Your task to perform on an android device: turn off translation in the chrome app Image 0: 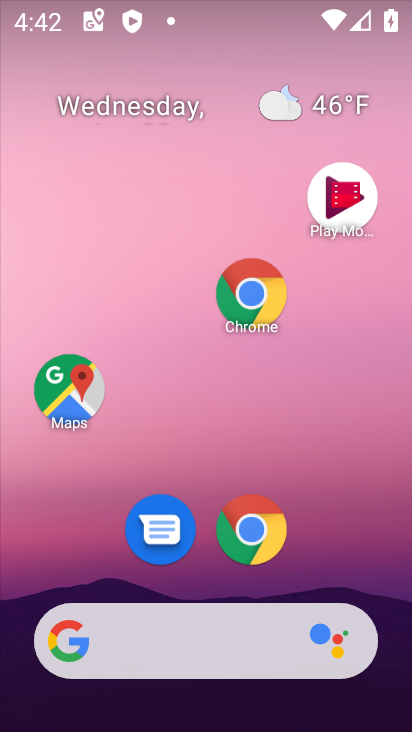
Step 0: click (259, 537)
Your task to perform on an android device: turn off translation in the chrome app Image 1: 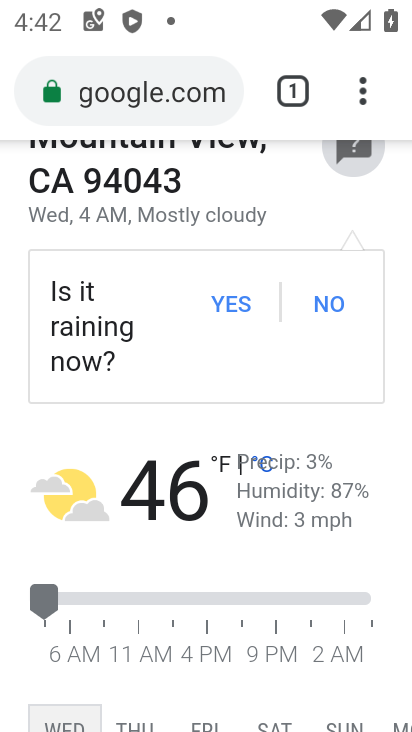
Step 1: drag from (363, 88) to (269, 569)
Your task to perform on an android device: turn off translation in the chrome app Image 2: 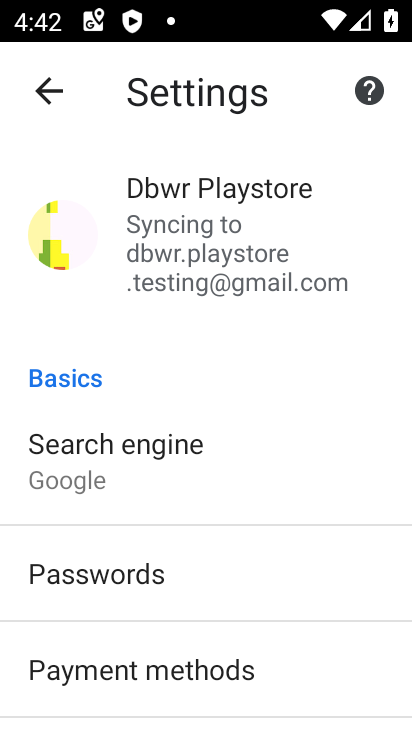
Step 2: drag from (264, 665) to (264, 217)
Your task to perform on an android device: turn off translation in the chrome app Image 3: 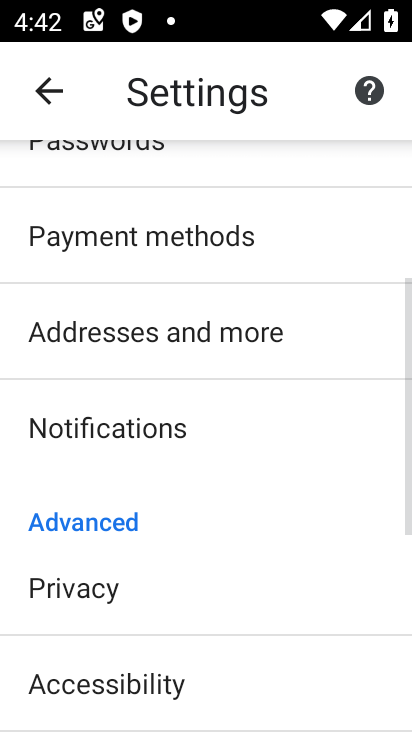
Step 3: drag from (199, 644) to (259, 220)
Your task to perform on an android device: turn off translation in the chrome app Image 4: 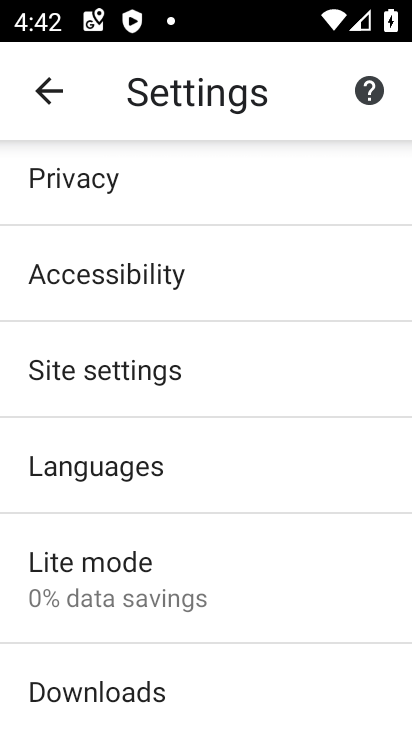
Step 4: click (200, 470)
Your task to perform on an android device: turn off translation in the chrome app Image 5: 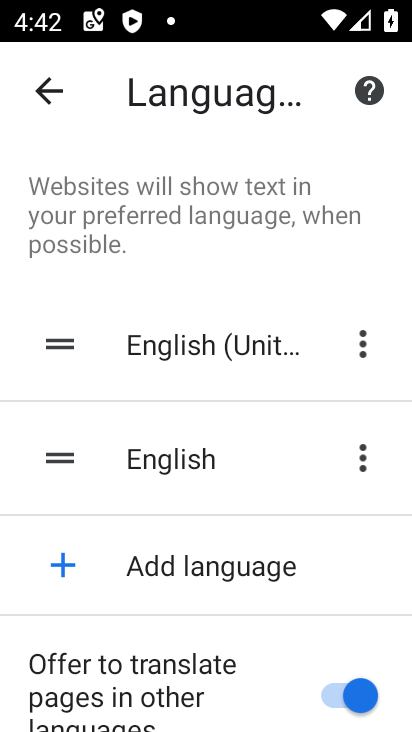
Step 5: click (354, 690)
Your task to perform on an android device: turn off translation in the chrome app Image 6: 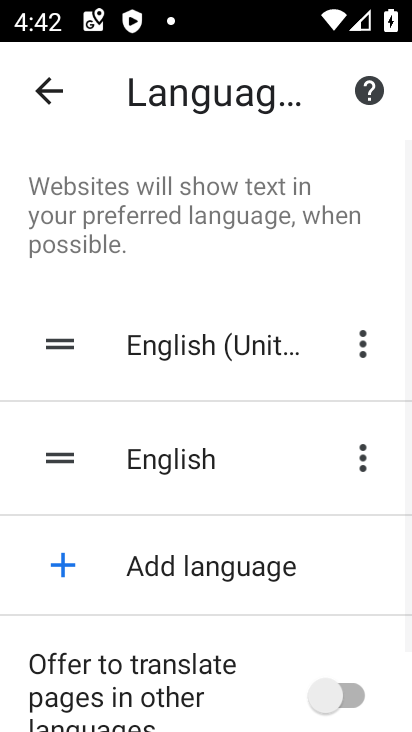
Step 6: task complete